Your task to perform on an android device: Open settings Image 0: 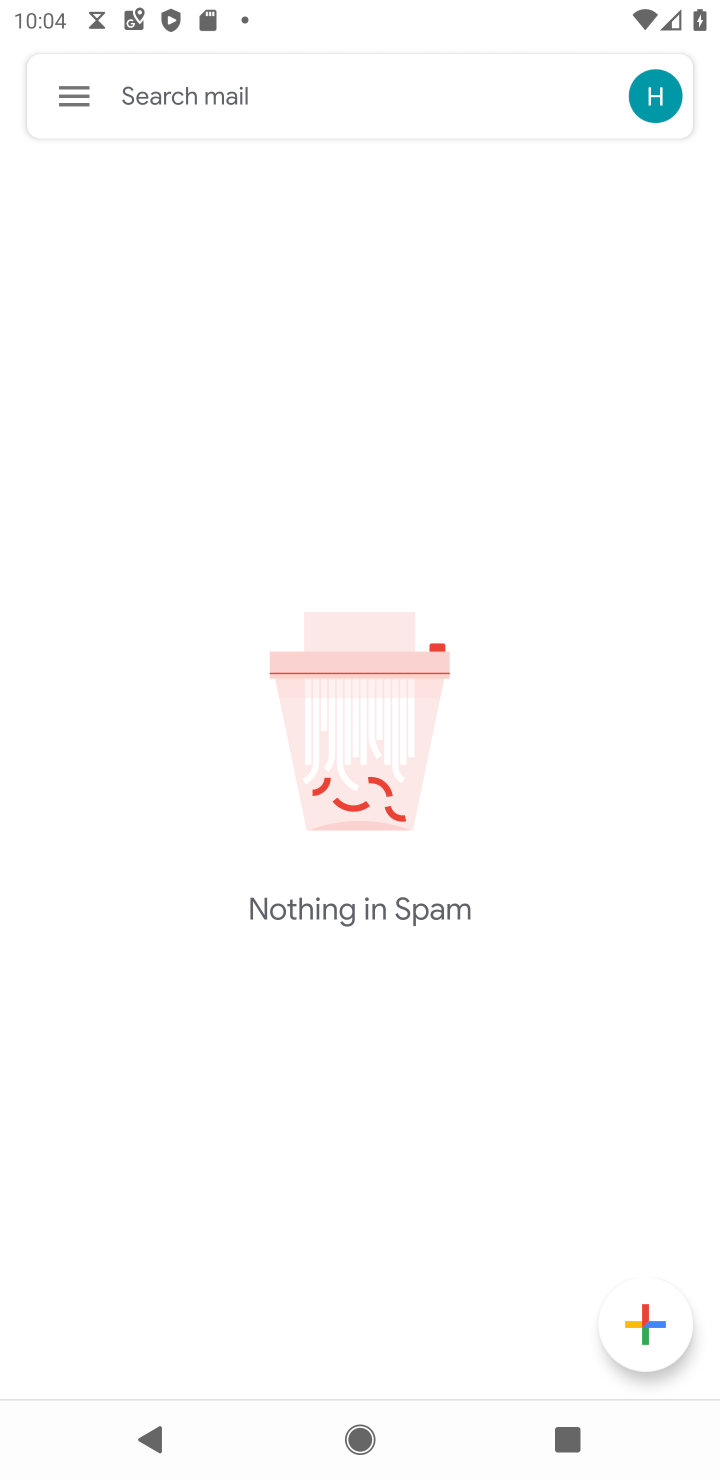
Step 0: press home button
Your task to perform on an android device: Open settings Image 1: 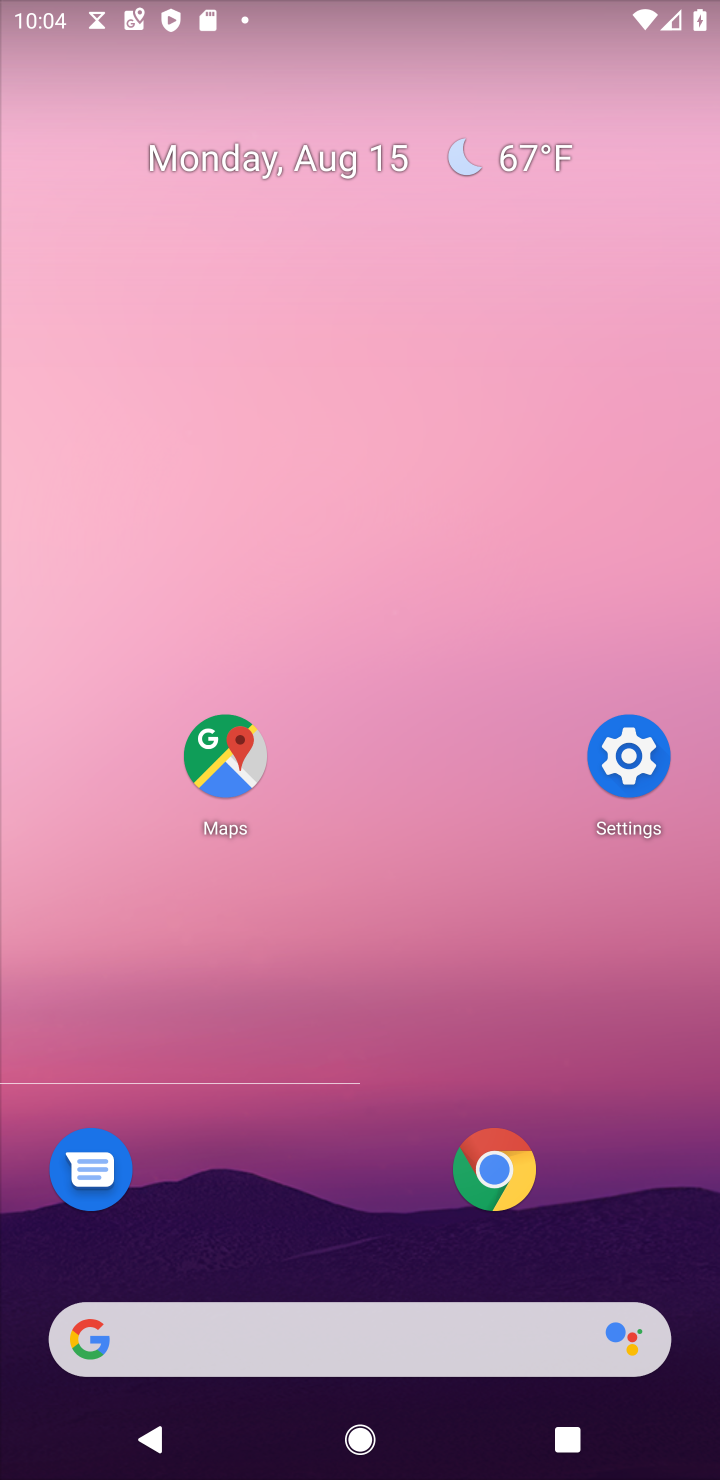
Step 1: click (634, 761)
Your task to perform on an android device: Open settings Image 2: 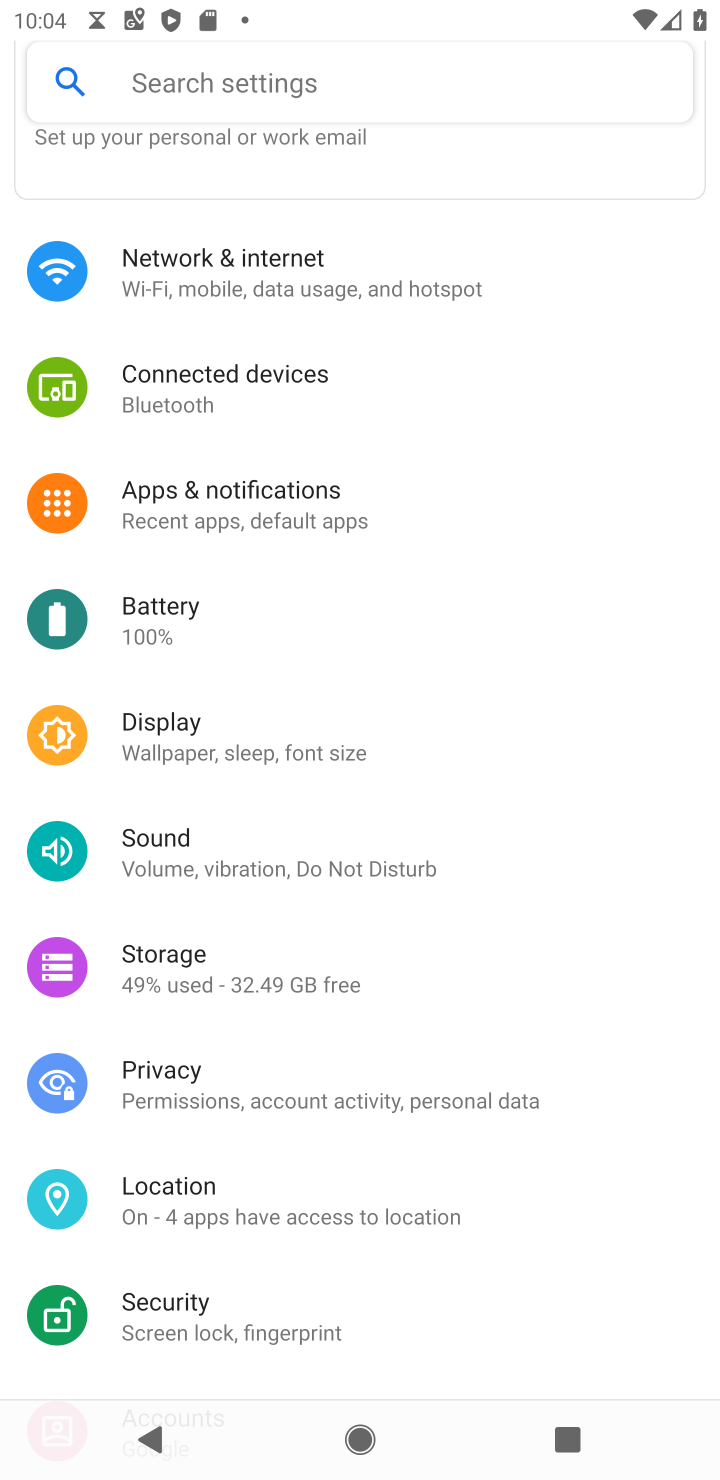
Step 2: task complete